Your task to perform on an android device: turn on location history Image 0: 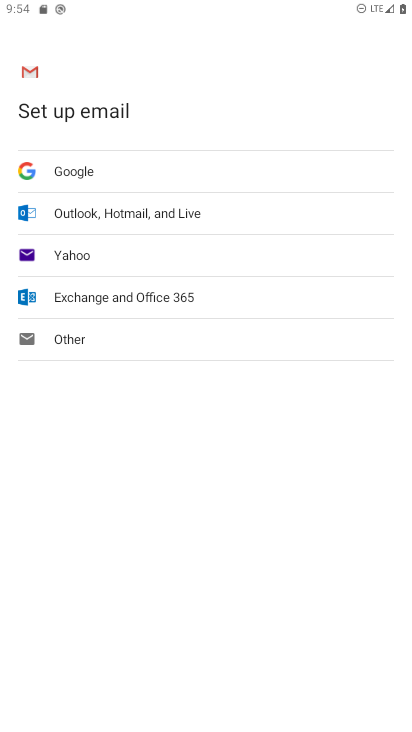
Step 0: press home button
Your task to perform on an android device: turn on location history Image 1: 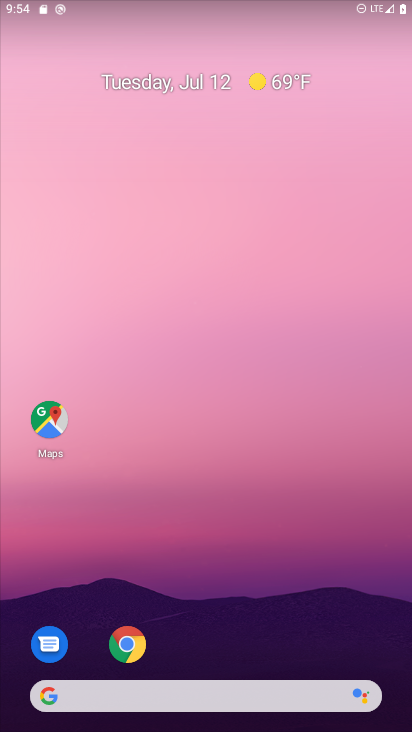
Step 1: drag from (211, 657) to (237, 12)
Your task to perform on an android device: turn on location history Image 2: 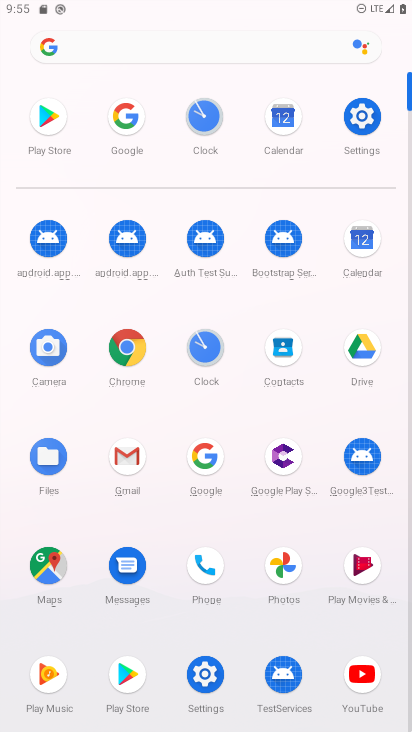
Step 2: click (360, 110)
Your task to perform on an android device: turn on location history Image 3: 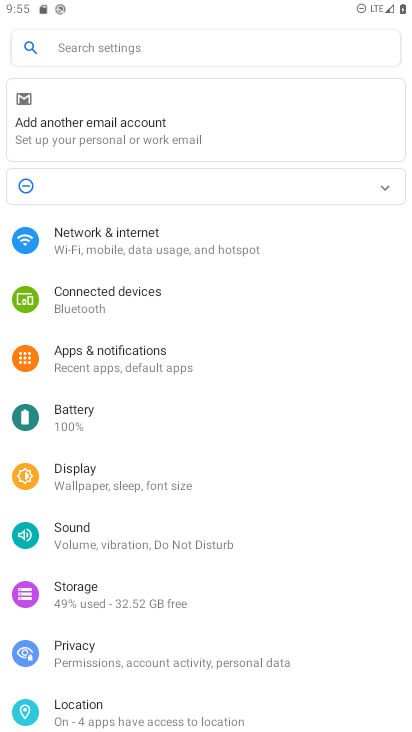
Step 3: click (121, 698)
Your task to perform on an android device: turn on location history Image 4: 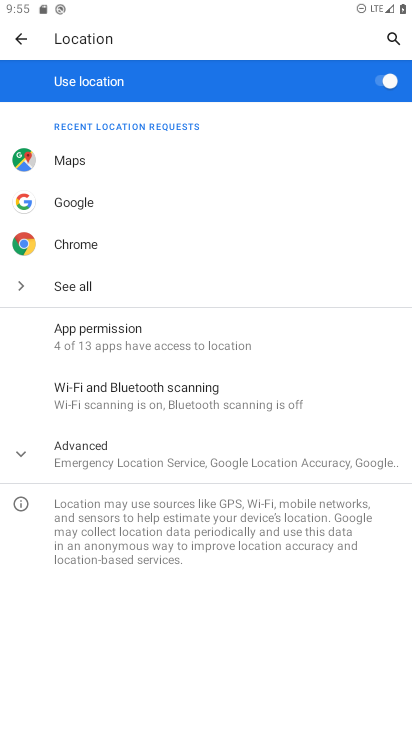
Step 4: click (23, 452)
Your task to perform on an android device: turn on location history Image 5: 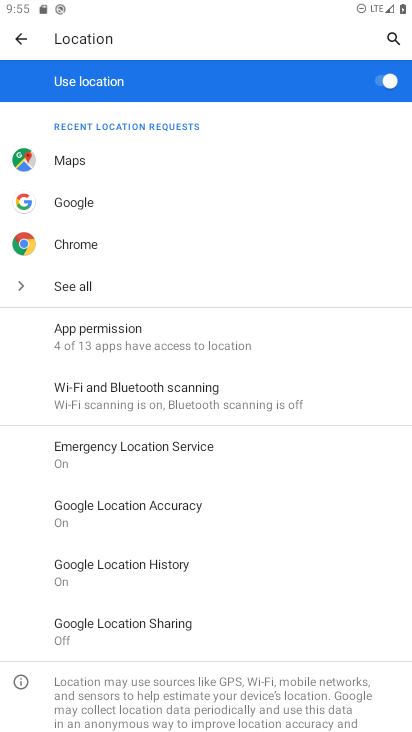
Step 5: click (156, 566)
Your task to perform on an android device: turn on location history Image 6: 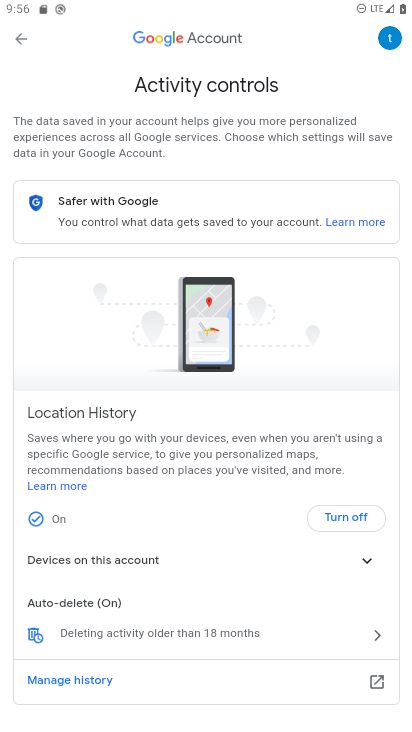
Step 6: task complete